Your task to perform on an android device: find which apps use the phone's location Image 0: 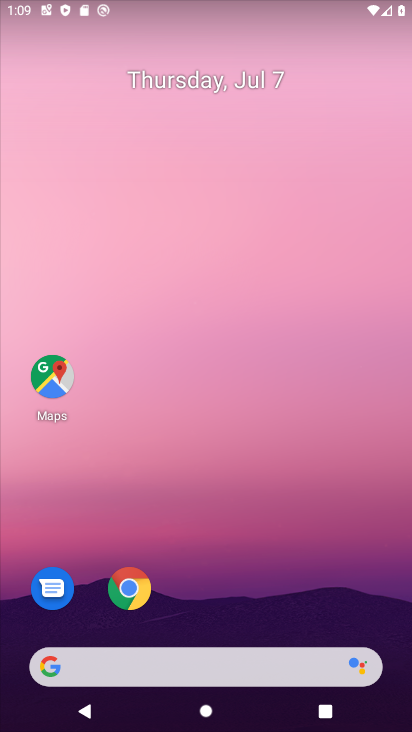
Step 0: drag from (251, 580) to (201, 123)
Your task to perform on an android device: find which apps use the phone's location Image 1: 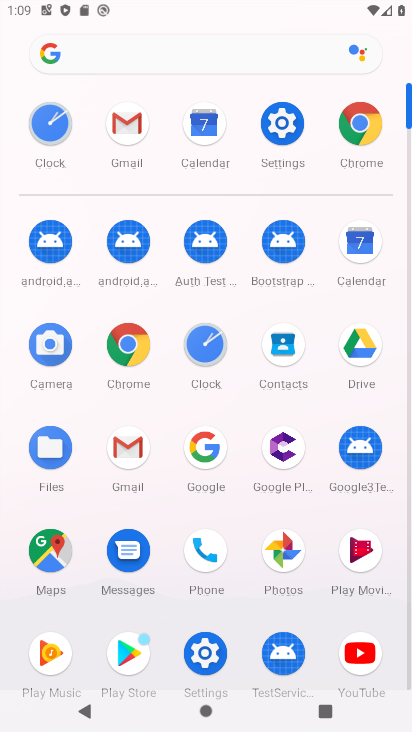
Step 1: click (293, 104)
Your task to perform on an android device: find which apps use the phone's location Image 2: 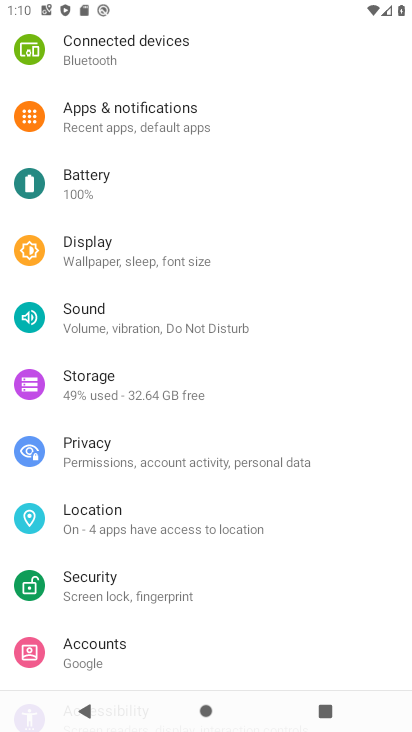
Step 2: click (223, 515)
Your task to perform on an android device: find which apps use the phone's location Image 3: 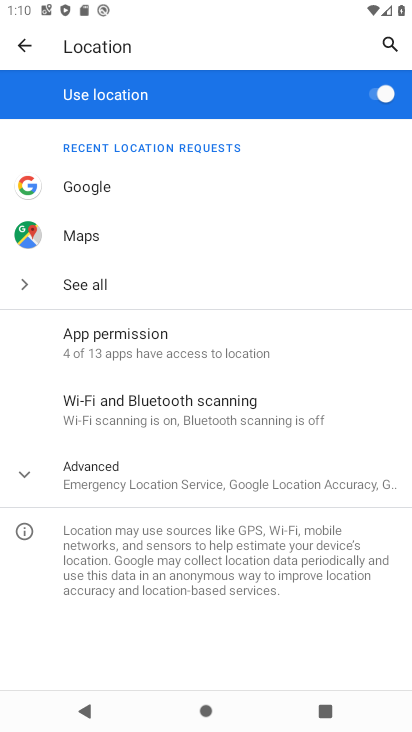
Step 3: click (213, 497)
Your task to perform on an android device: find which apps use the phone's location Image 4: 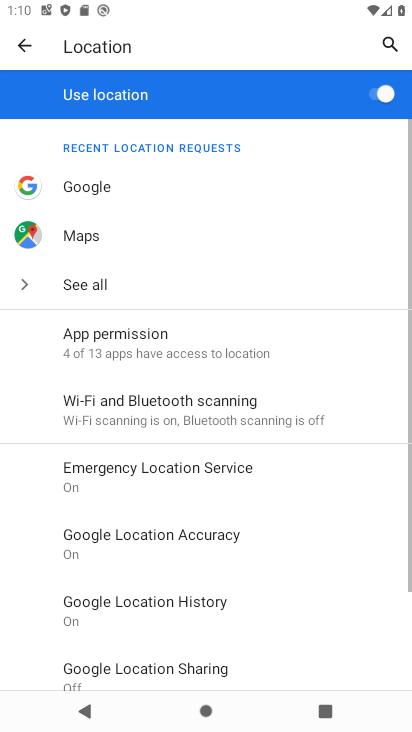
Step 4: task complete